Your task to perform on an android device: open sync settings in chrome Image 0: 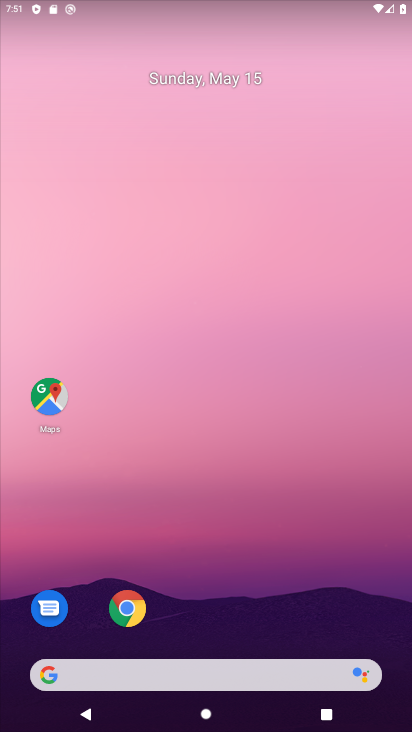
Step 0: drag from (314, 615) to (274, 103)
Your task to perform on an android device: open sync settings in chrome Image 1: 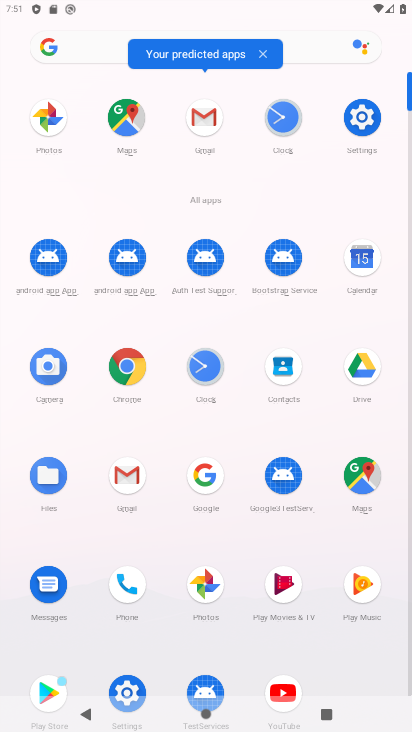
Step 1: click (358, 119)
Your task to perform on an android device: open sync settings in chrome Image 2: 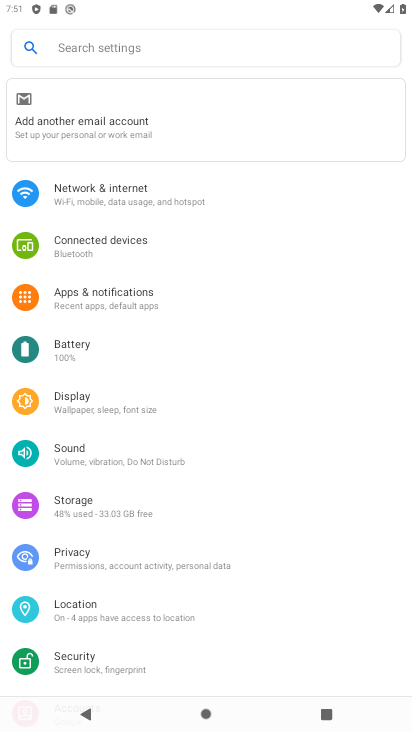
Step 2: press home button
Your task to perform on an android device: open sync settings in chrome Image 3: 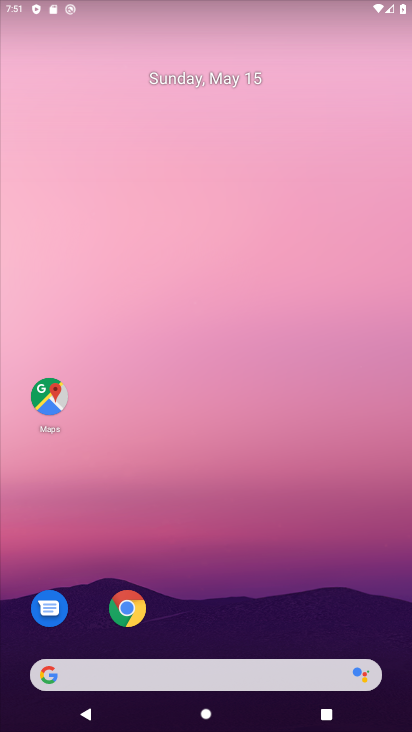
Step 3: drag from (210, 633) to (140, 0)
Your task to perform on an android device: open sync settings in chrome Image 4: 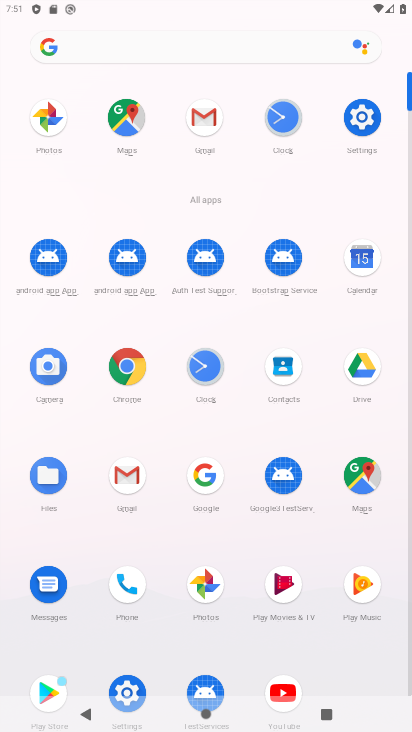
Step 4: drag from (120, 366) to (114, 456)
Your task to perform on an android device: open sync settings in chrome Image 5: 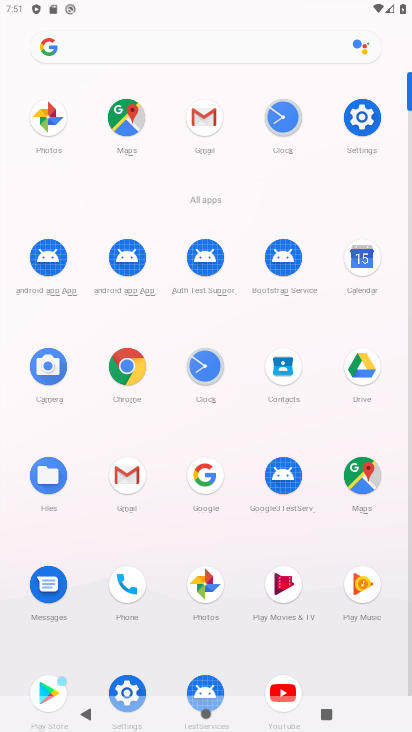
Step 5: click (128, 370)
Your task to perform on an android device: open sync settings in chrome Image 6: 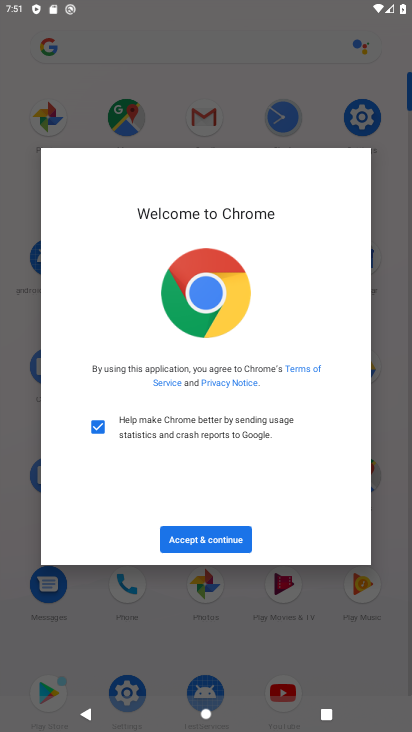
Step 6: click (202, 527)
Your task to perform on an android device: open sync settings in chrome Image 7: 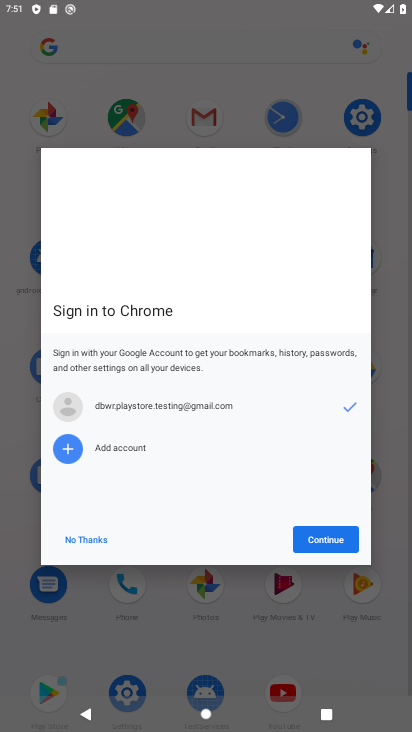
Step 7: click (328, 534)
Your task to perform on an android device: open sync settings in chrome Image 8: 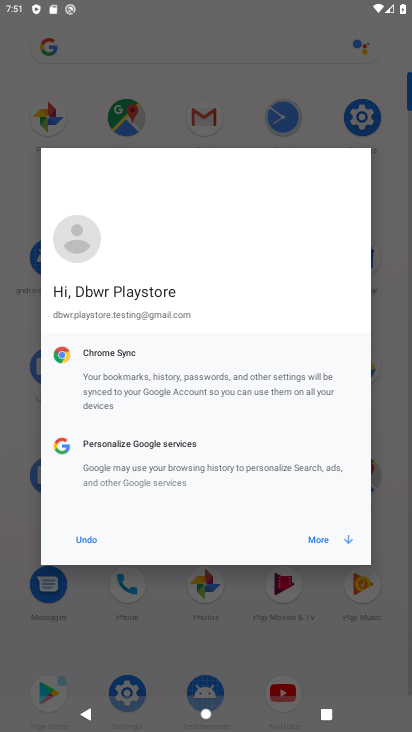
Step 8: click (329, 544)
Your task to perform on an android device: open sync settings in chrome Image 9: 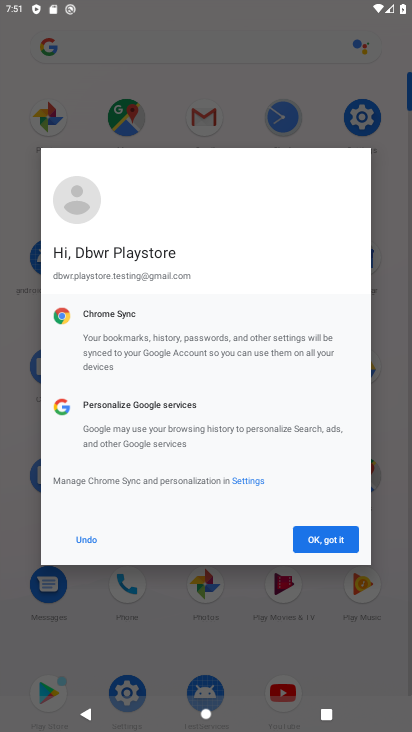
Step 9: click (328, 543)
Your task to perform on an android device: open sync settings in chrome Image 10: 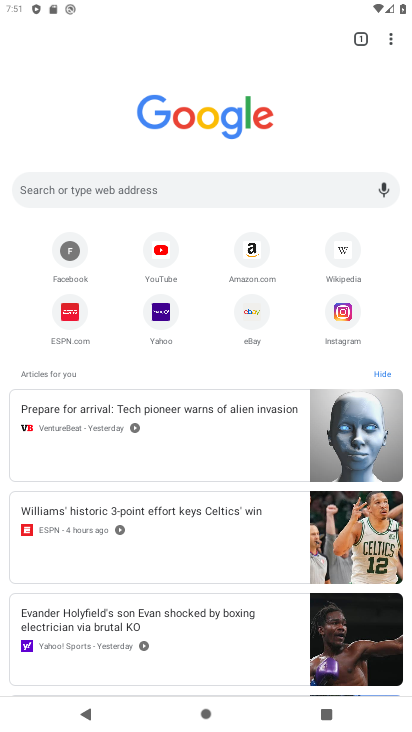
Step 10: click (393, 42)
Your task to perform on an android device: open sync settings in chrome Image 11: 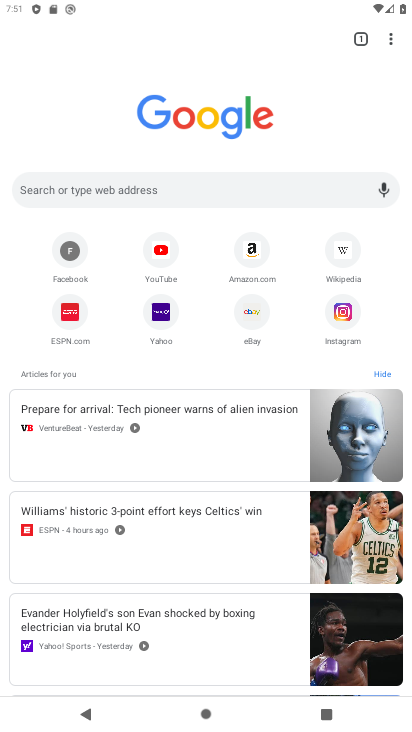
Step 11: click (393, 37)
Your task to perform on an android device: open sync settings in chrome Image 12: 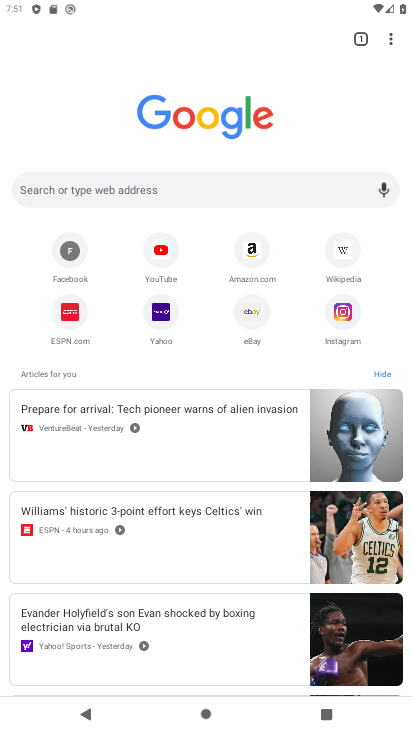
Step 12: click (392, 38)
Your task to perform on an android device: open sync settings in chrome Image 13: 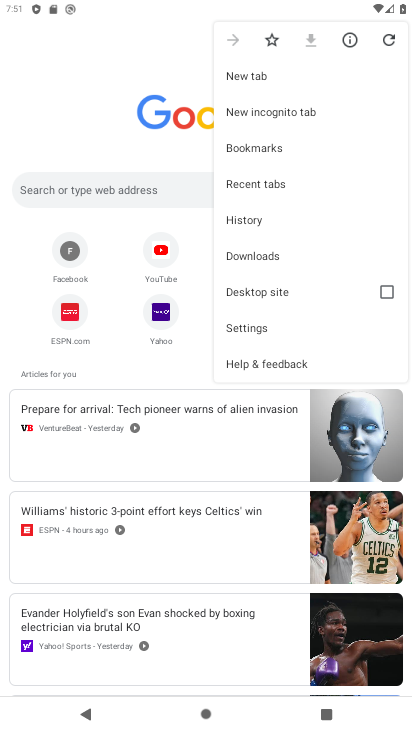
Step 13: click (249, 324)
Your task to perform on an android device: open sync settings in chrome Image 14: 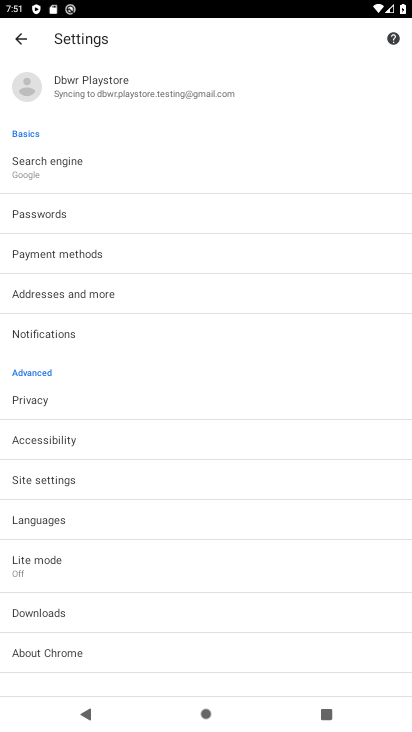
Step 14: click (32, 476)
Your task to perform on an android device: open sync settings in chrome Image 15: 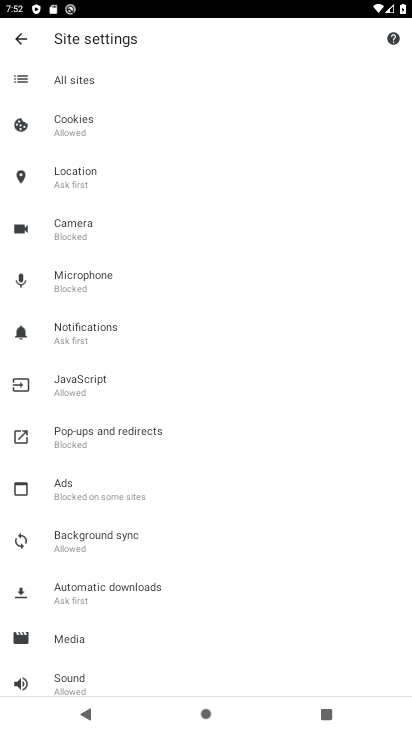
Step 15: click (103, 532)
Your task to perform on an android device: open sync settings in chrome Image 16: 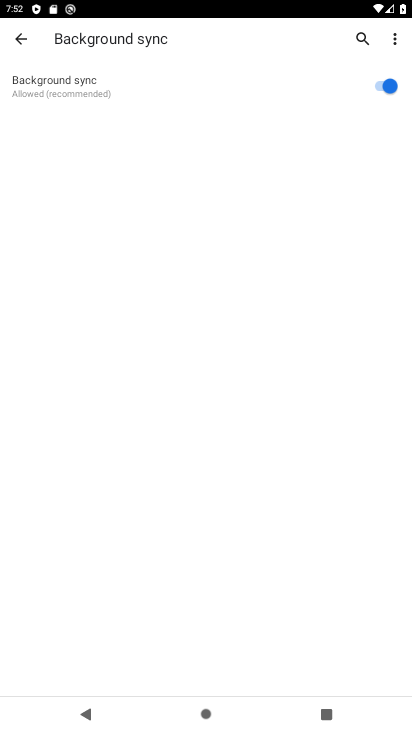
Step 16: task complete